Your task to perform on an android device: toggle data saver in the chrome app Image 0: 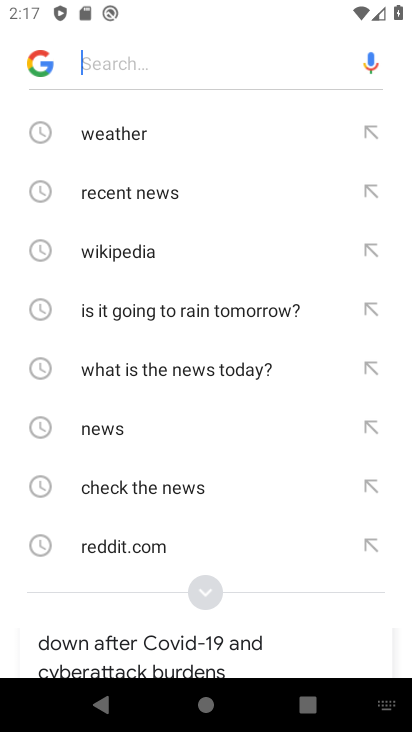
Step 0: press back button
Your task to perform on an android device: toggle data saver in the chrome app Image 1: 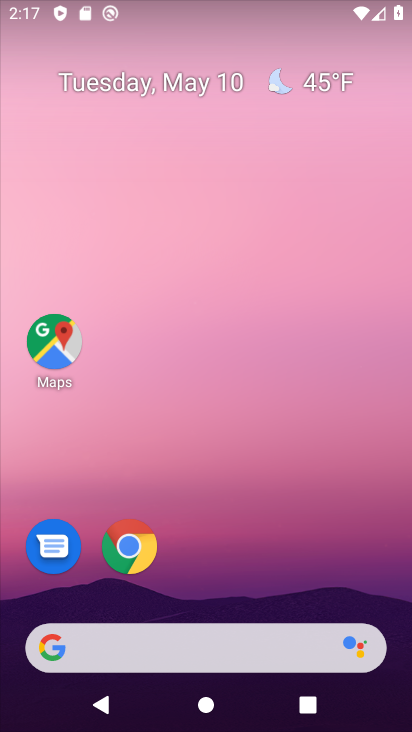
Step 1: drag from (276, 537) to (192, 18)
Your task to perform on an android device: toggle data saver in the chrome app Image 2: 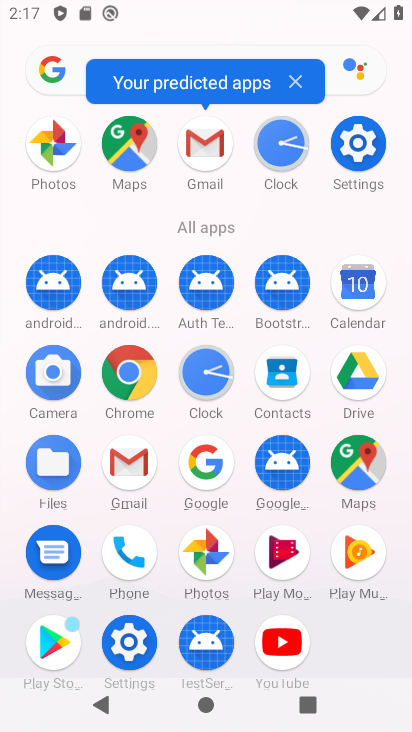
Step 2: click (130, 373)
Your task to perform on an android device: toggle data saver in the chrome app Image 3: 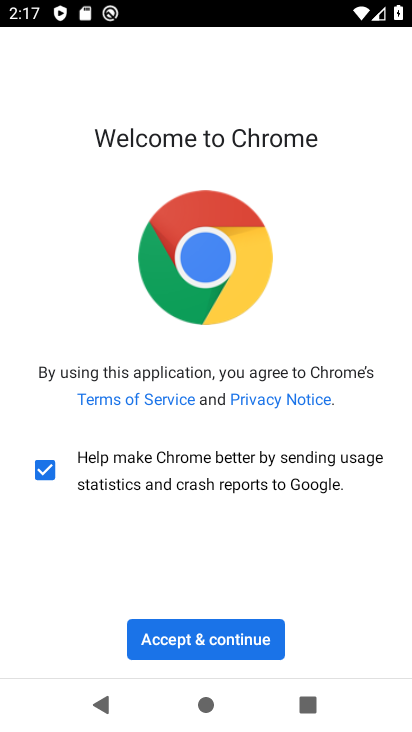
Step 3: click (217, 644)
Your task to perform on an android device: toggle data saver in the chrome app Image 4: 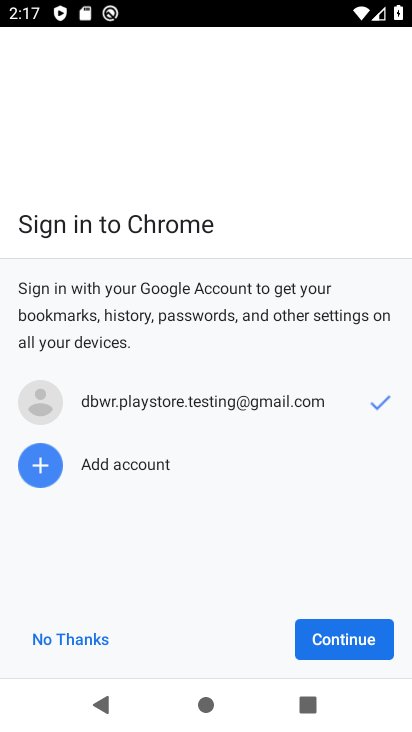
Step 4: click (335, 629)
Your task to perform on an android device: toggle data saver in the chrome app Image 5: 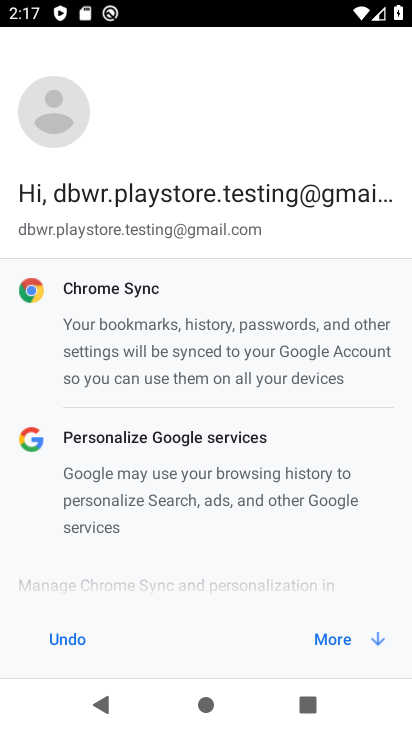
Step 5: click (333, 643)
Your task to perform on an android device: toggle data saver in the chrome app Image 6: 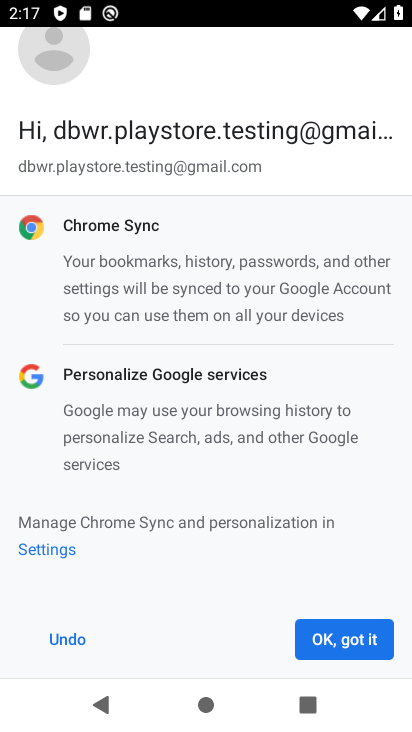
Step 6: click (333, 643)
Your task to perform on an android device: toggle data saver in the chrome app Image 7: 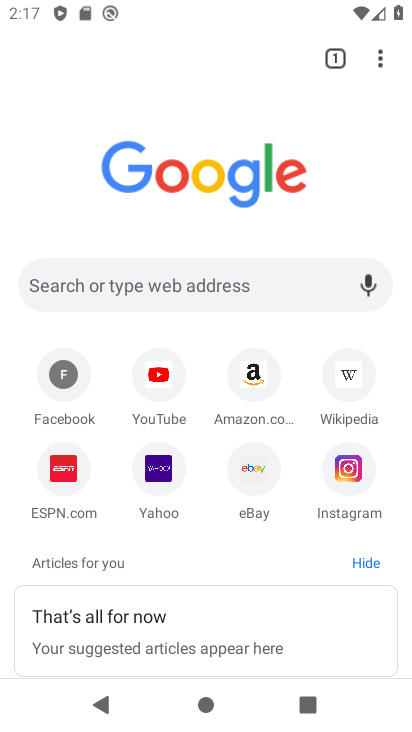
Step 7: drag from (380, 61) to (196, 497)
Your task to perform on an android device: toggle data saver in the chrome app Image 8: 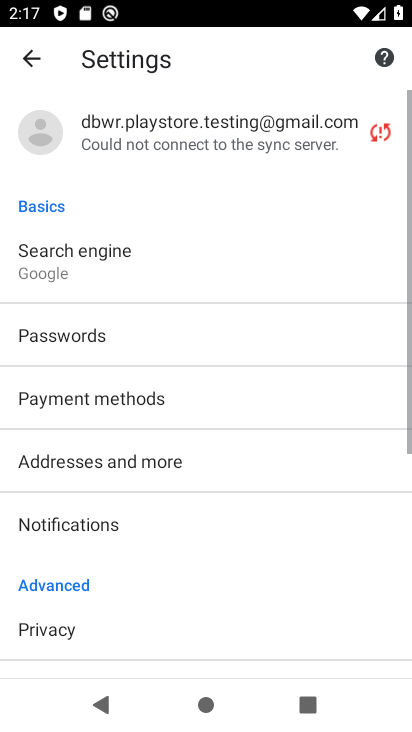
Step 8: drag from (180, 581) to (224, 184)
Your task to perform on an android device: toggle data saver in the chrome app Image 9: 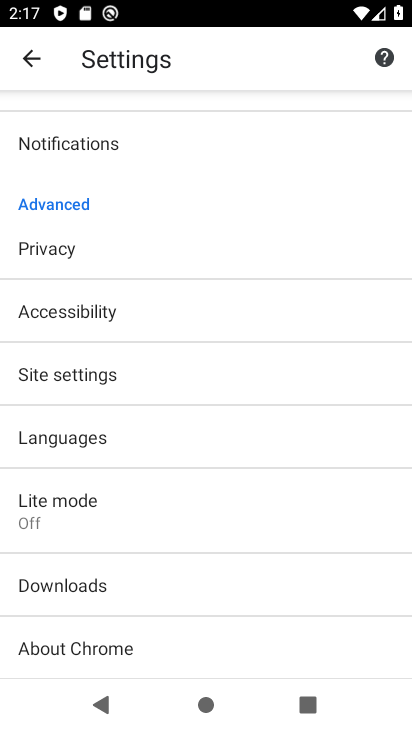
Step 9: click (131, 512)
Your task to perform on an android device: toggle data saver in the chrome app Image 10: 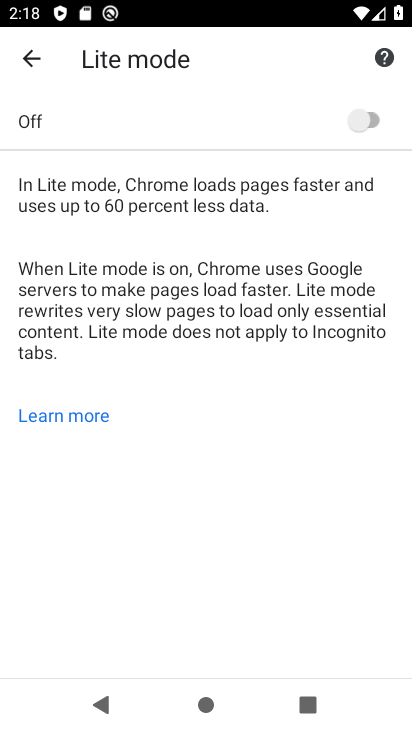
Step 10: click (361, 113)
Your task to perform on an android device: toggle data saver in the chrome app Image 11: 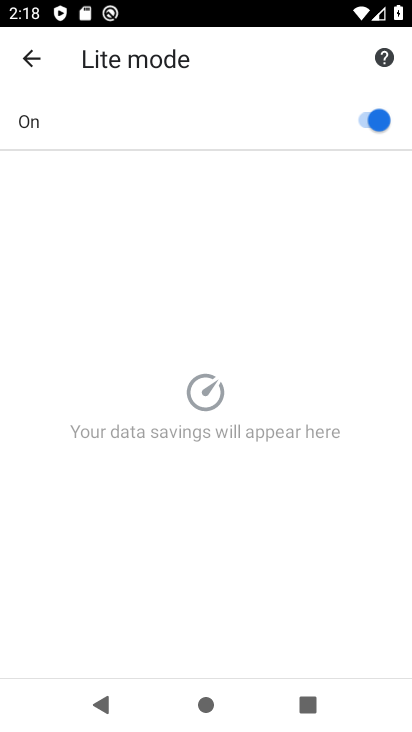
Step 11: task complete